Your task to perform on an android device: refresh tabs in the chrome app Image 0: 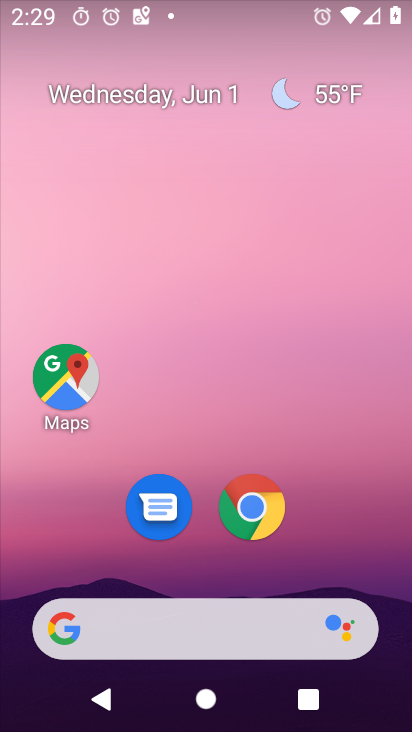
Step 0: click (248, 513)
Your task to perform on an android device: refresh tabs in the chrome app Image 1: 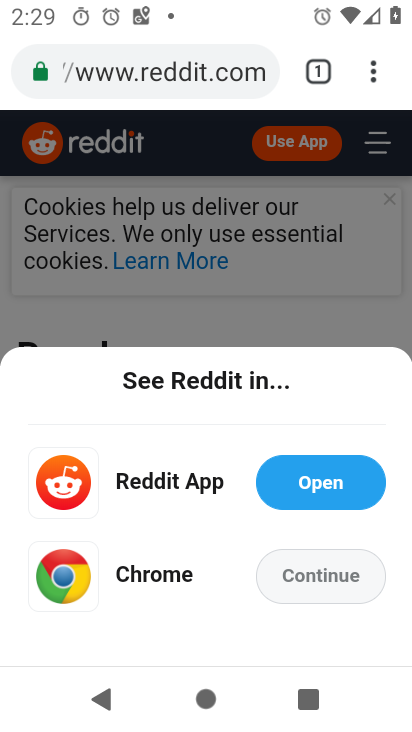
Step 1: click (375, 74)
Your task to perform on an android device: refresh tabs in the chrome app Image 2: 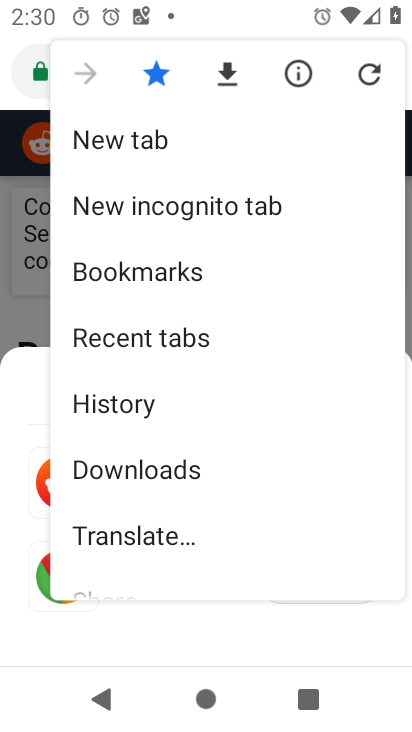
Step 2: click (370, 75)
Your task to perform on an android device: refresh tabs in the chrome app Image 3: 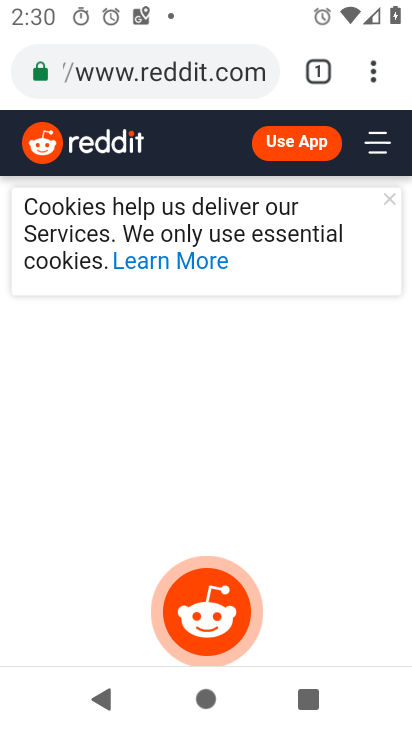
Step 3: task complete